Your task to perform on an android device: stop showing notifications on the lock screen Image 0: 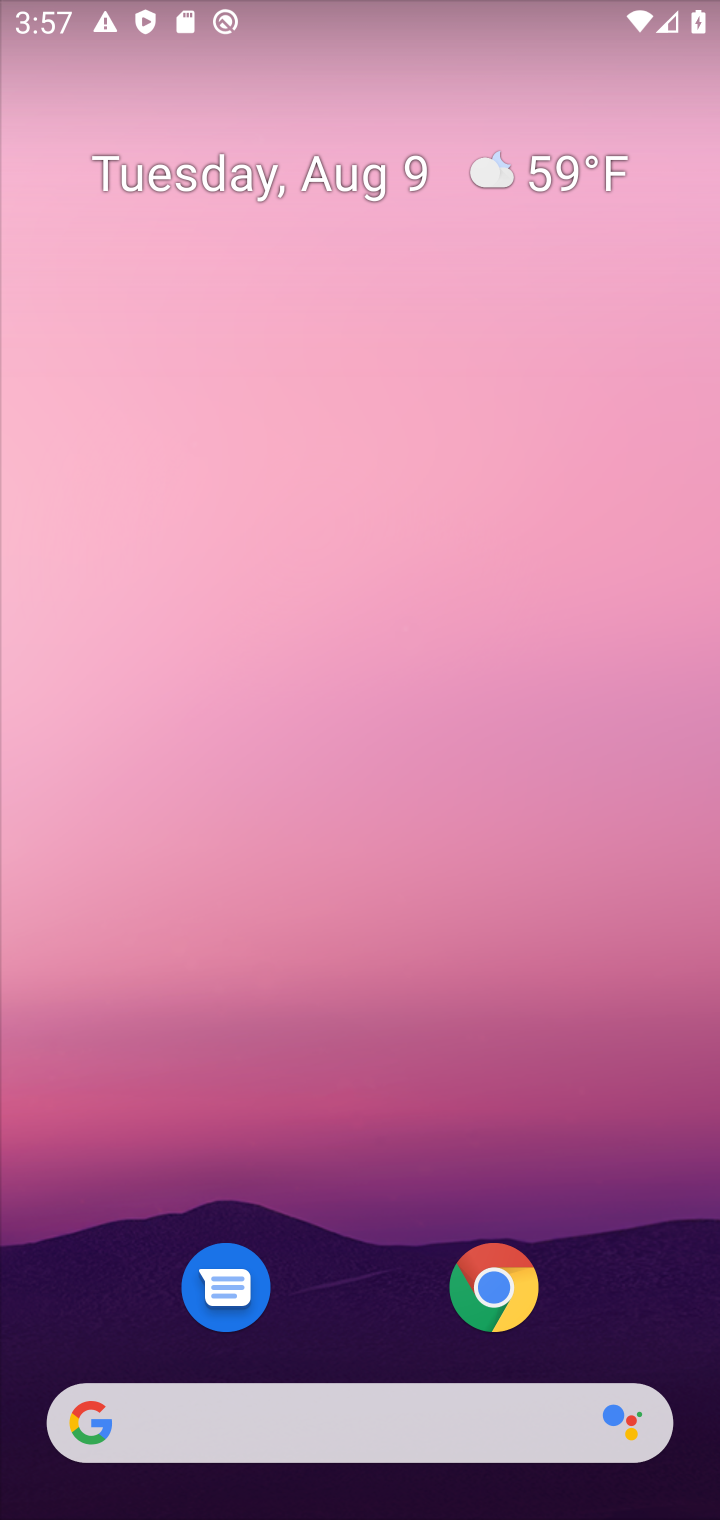
Step 0: drag from (355, 1147) to (559, 255)
Your task to perform on an android device: stop showing notifications on the lock screen Image 1: 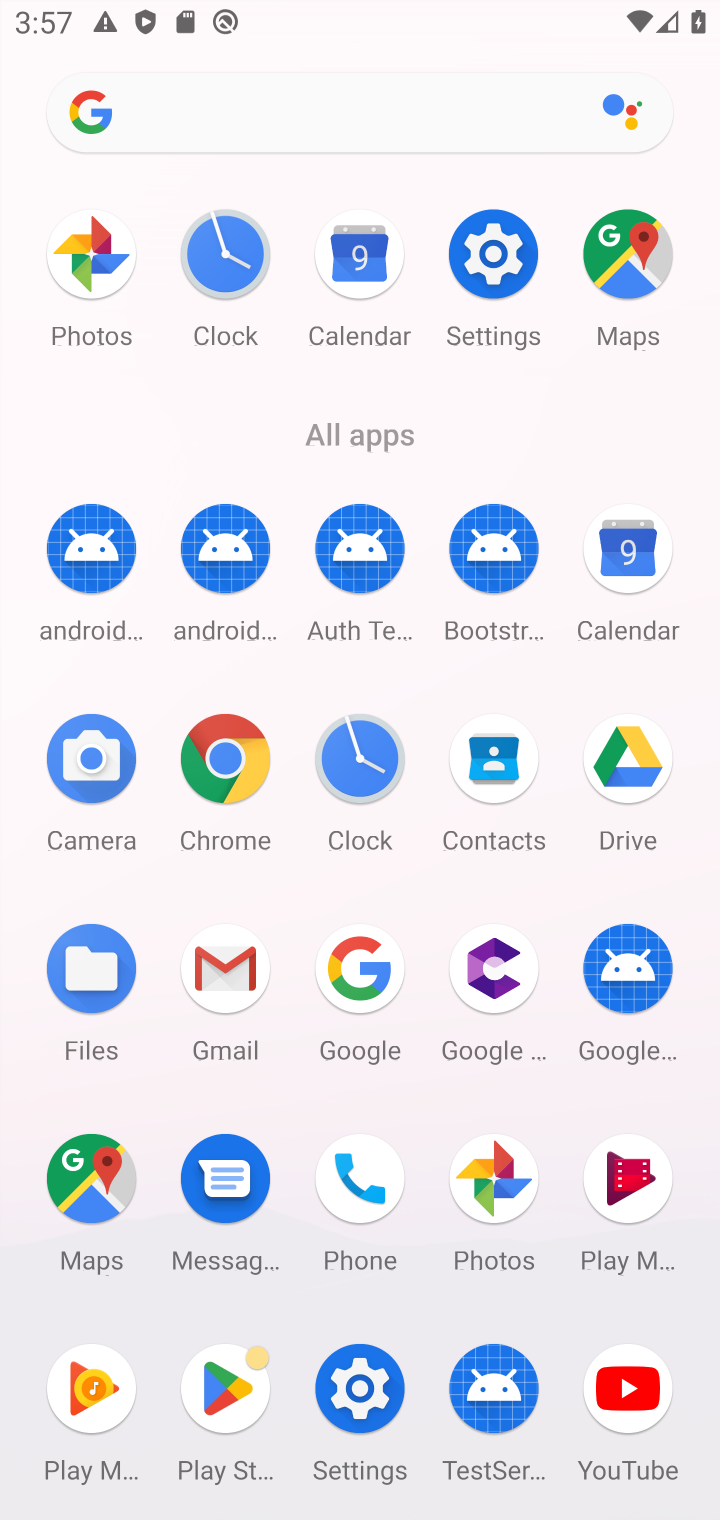
Step 1: click (521, 260)
Your task to perform on an android device: stop showing notifications on the lock screen Image 2: 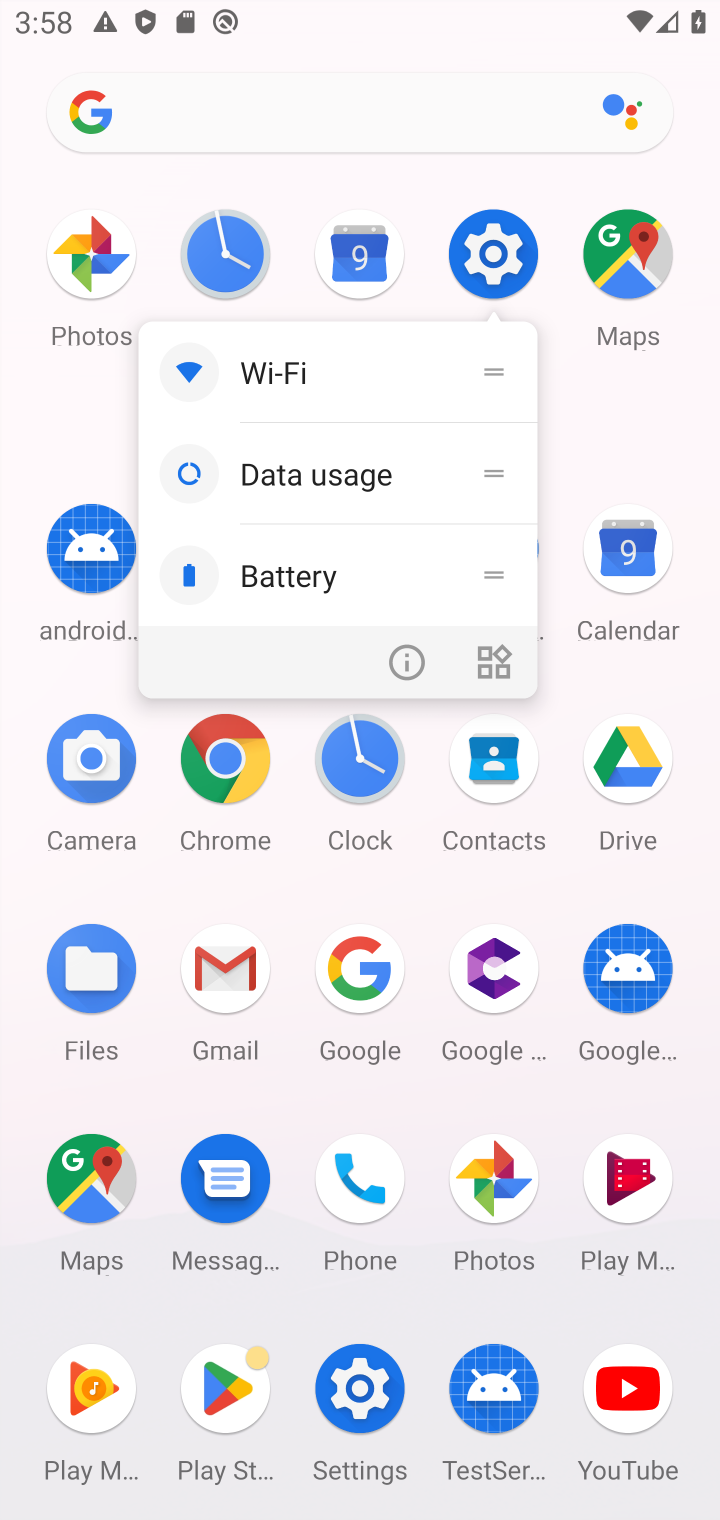
Step 2: task complete